Your task to perform on an android device: toggle notifications settings in the gmail app Image 0: 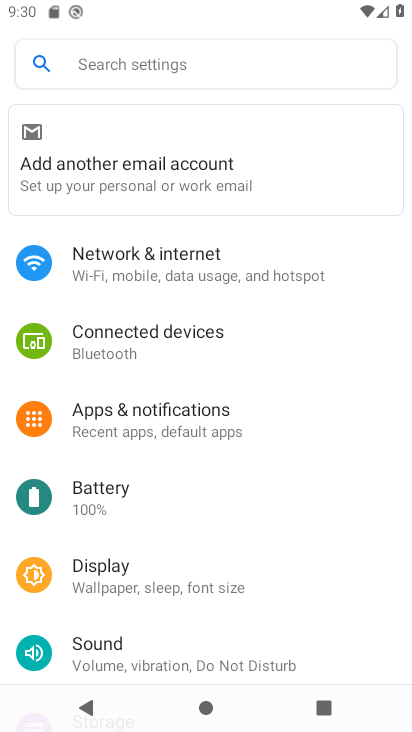
Step 0: press home button
Your task to perform on an android device: toggle notifications settings in the gmail app Image 1: 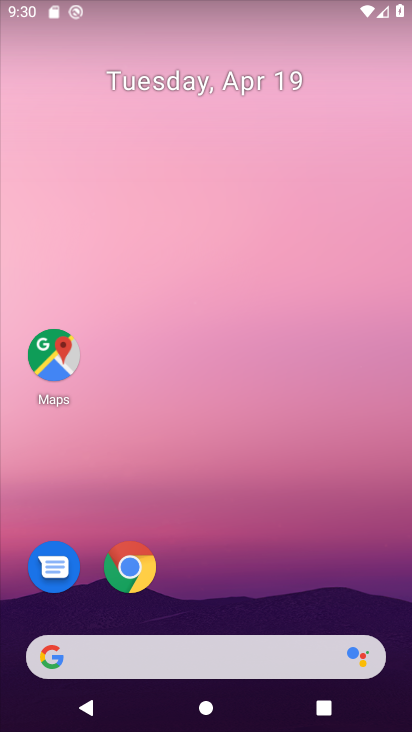
Step 1: drag from (211, 602) to (357, 15)
Your task to perform on an android device: toggle notifications settings in the gmail app Image 2: 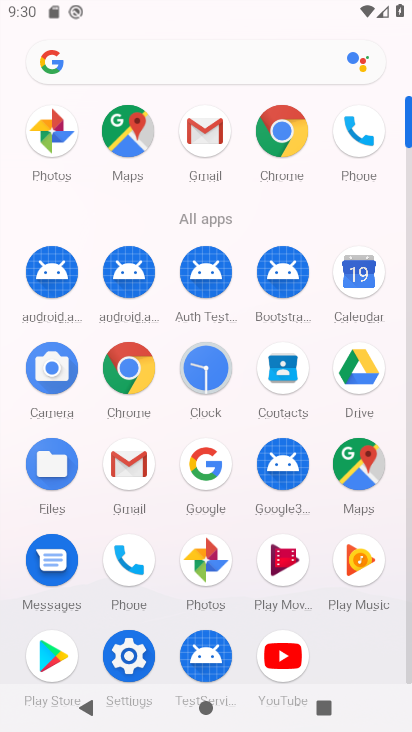
Step 2: click (126, 453)
Your task to perform on an android device: toggle notifications settings in the gmail app Image 3: 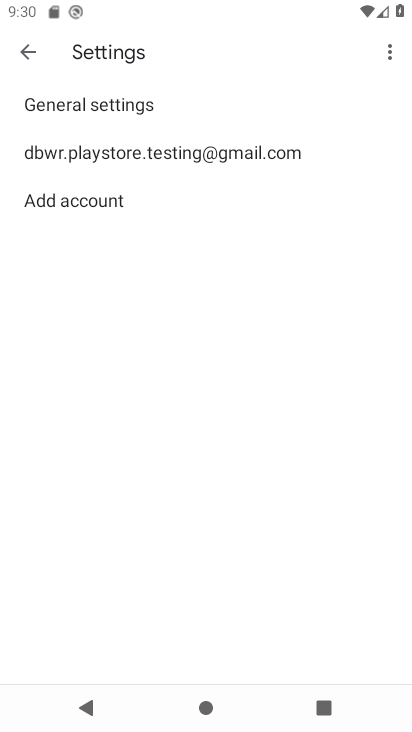
Step 3: click (214, 155)
Your task to perform on an android device: toggle notifications settings in the gmail app Image 4: 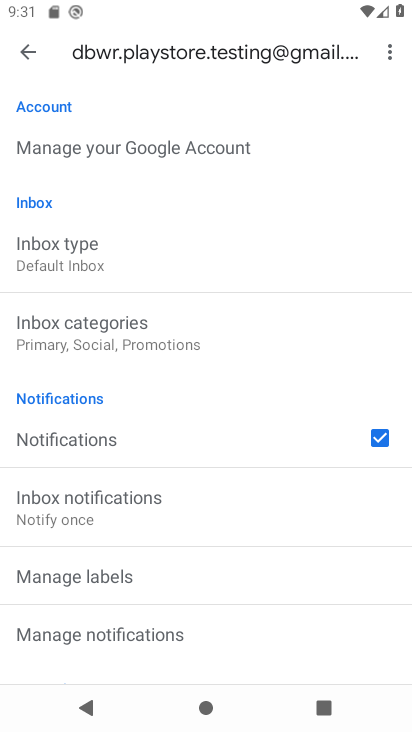
Step 4: click (172, 642)
Your task to perform on an android device: toggle notifications settings in the gmail app Image 5: 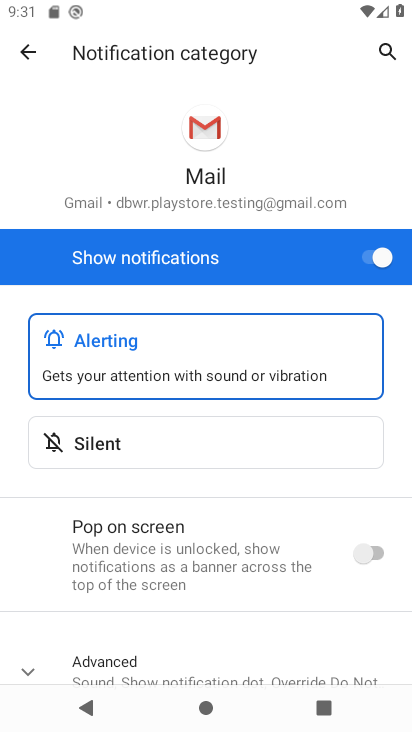
Step 5: click (347, 256)
Your task to perform on an android device: toggle notifications settings in the gmail app Image 6: 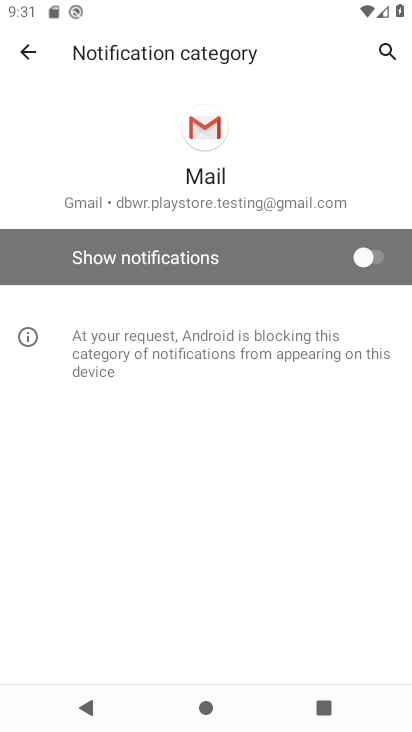
Step 6: task complete